Your task to perform on an android device: empty trash in the gmail app Image 0: 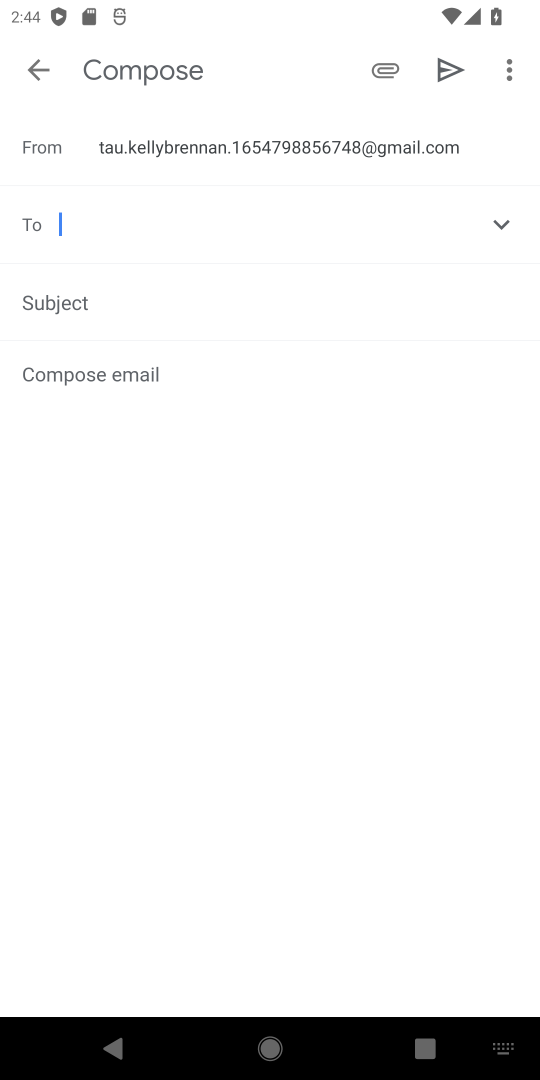
Step 0: press home button
Your task to perform on an android device: empty trash in the gmail app Image 1: 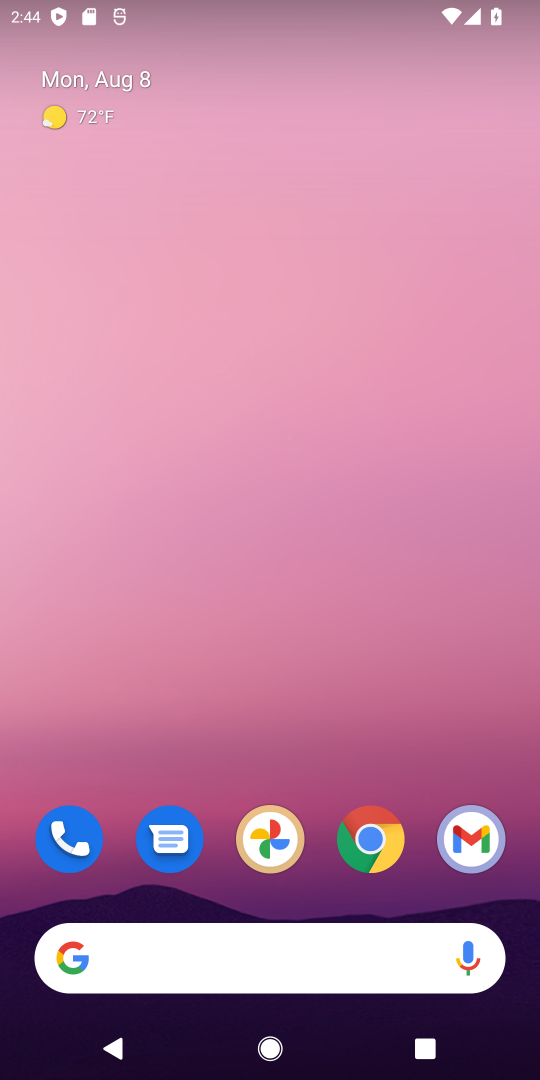
Step 1: drag from (413, 743) to (443, 117)
Your task to perform on an android device: empty trash in the gmail app Image 2: 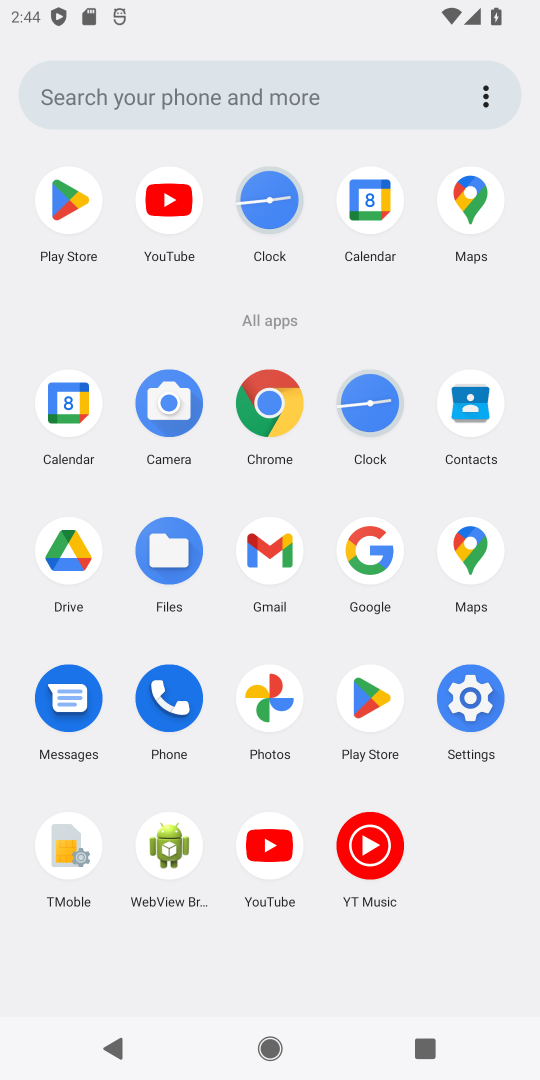
Step 2: click (271, 547)
Your task to perform on an android device: empty trash in the gmail app Image 3: 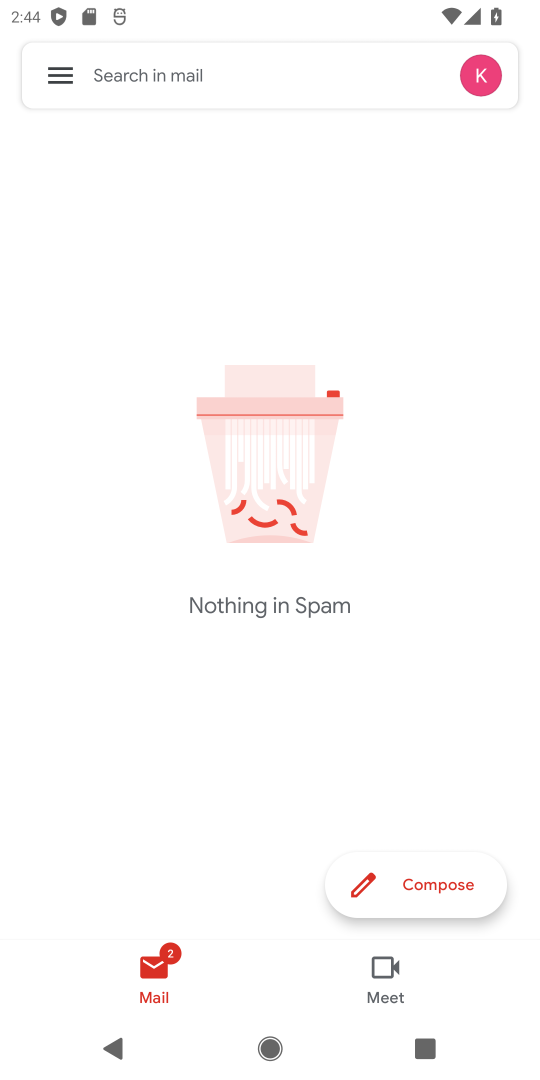
Step 3: click (58, 68)
Your task to perform on an android device: empty trash in the gmail app Image 4: 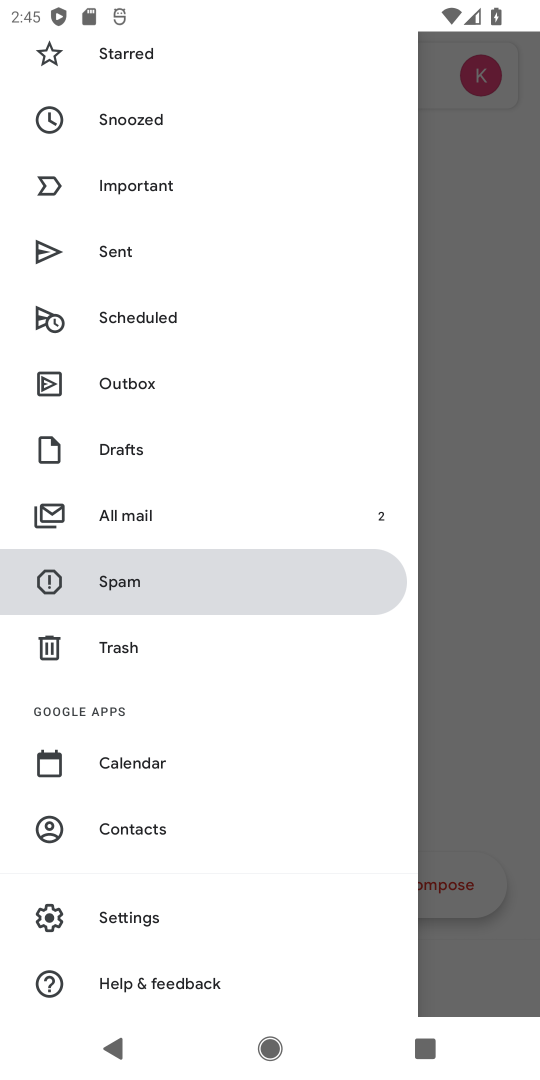
Step 4: drag from (285, 301) to (295, 440)
Your task to perform on an android device: empty trash in the gmail app Image 5: 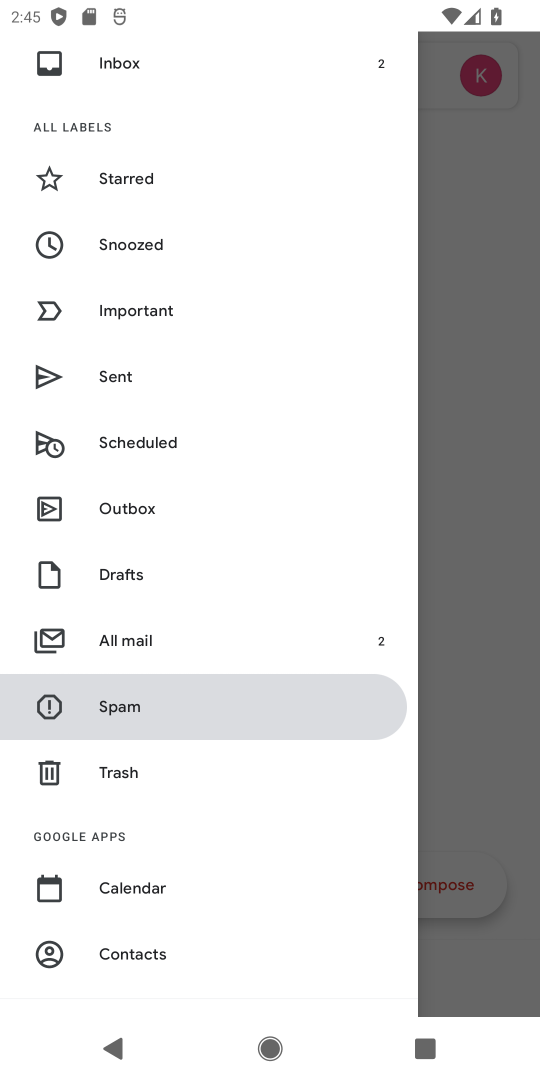
Step 5: drag from (295, 224) to (295, 391)
Your task to perform on an android device: empty trash in the gmail app Image 6: 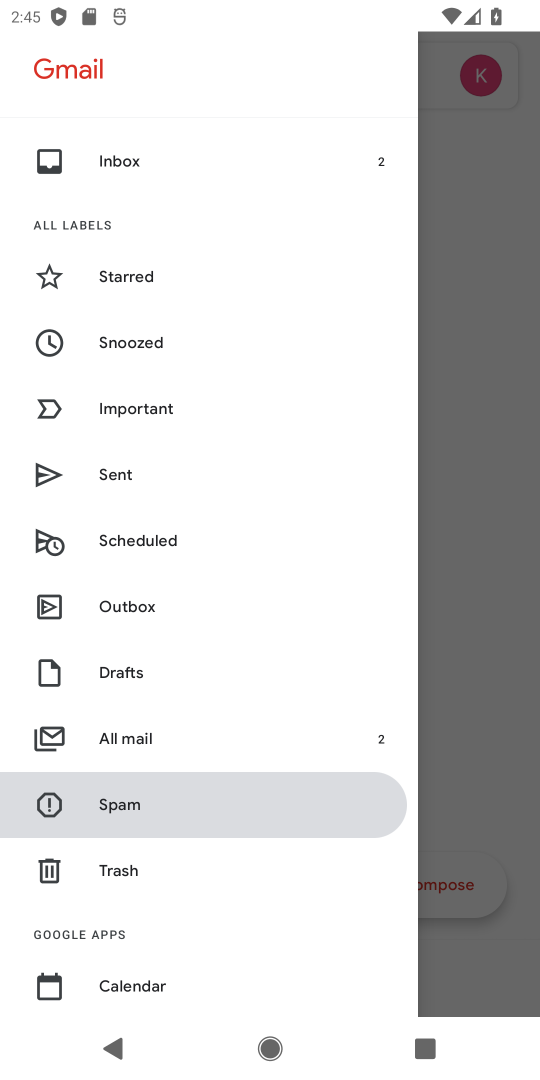
Step 6: drag from (276, 586) to (289, 299)
Your task to perform on an android device: empty trash in the gmail app Image 7: 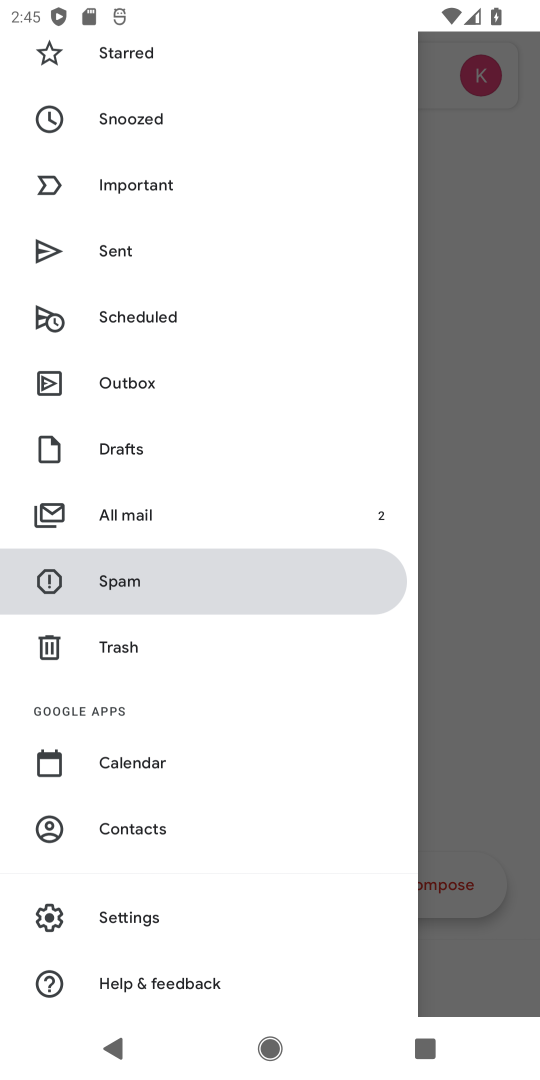
Step 7: drag from (265, 447) to (281, 241)
Your task to perform on an android device: empty trash in the gmail app Image 8: 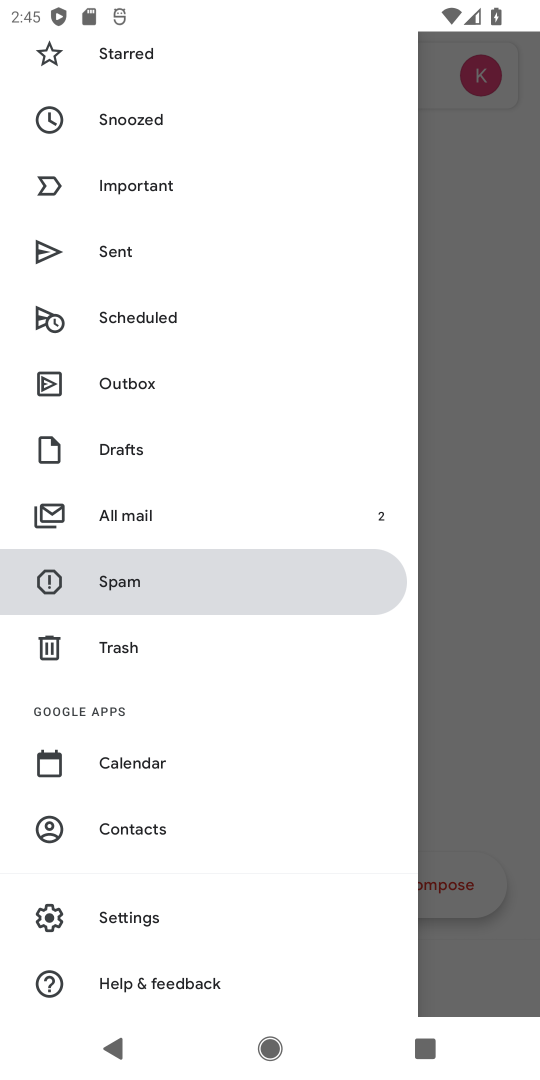
Step 8: click (223, 645)
Your task to perform on an android device: empty trash in the gmail app Image 9: 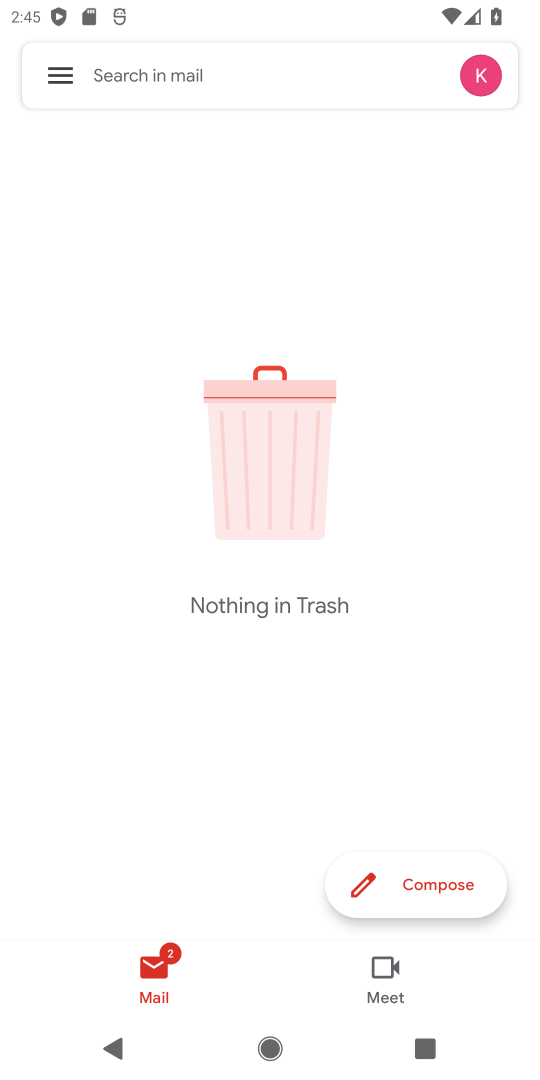
Step 9: task complete